Your task to perform on an android device: Open my contact list Image 0: 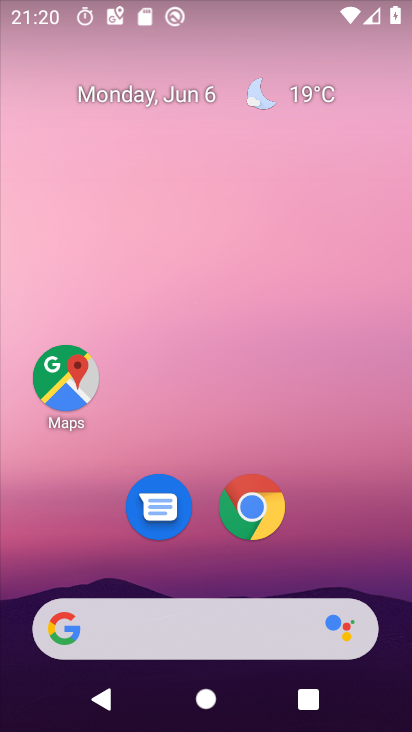
Step 0: press home button
Your task to perform on an android device: Open my contact list Image 1: 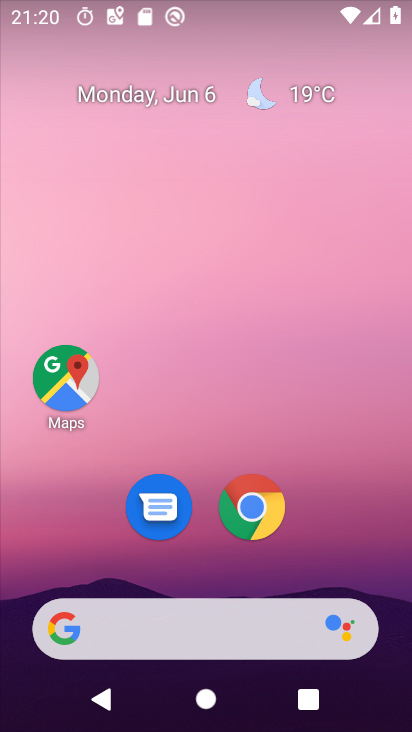
Step 1: drag from (383, 549) to (346, 98)
Your task to perform on an android device: Open my contact list Image 2: 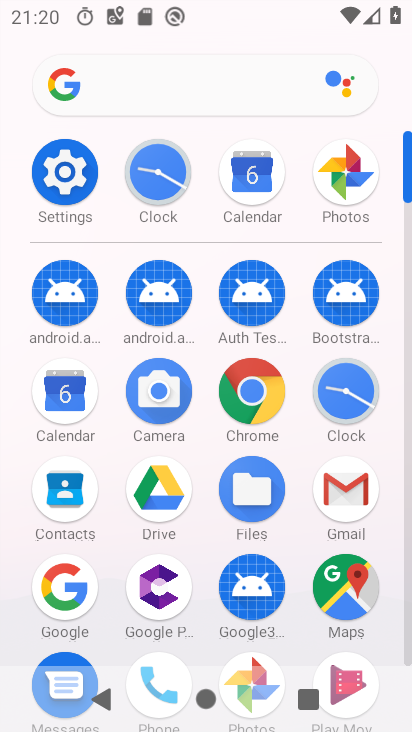
Step 2: drag from (290, 577) to (276, 230)
Your task to perform on an android device: Open my contact list Image 3: 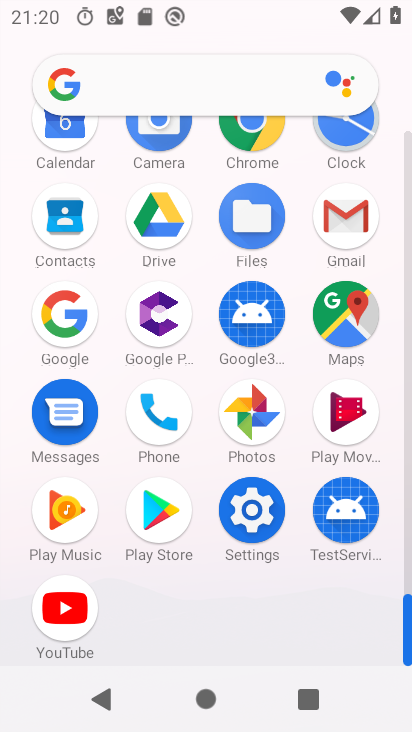
Step 3: click (85, 229)
Your task to perform on an android device: Open my contact list Image 4: 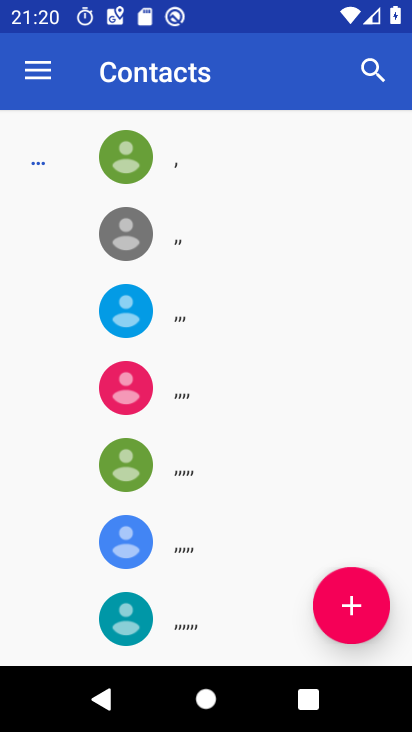
Step 4: task complete